Your task to perform on an android device: turn off sleep mode Image 0: 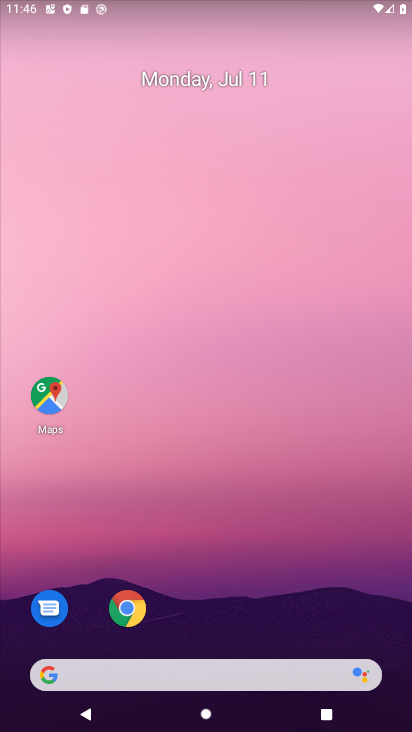
Step 0: drag from (237, 667) to (247, 286)
Your task to perform on an android device: turn off sleep mode Image 1: 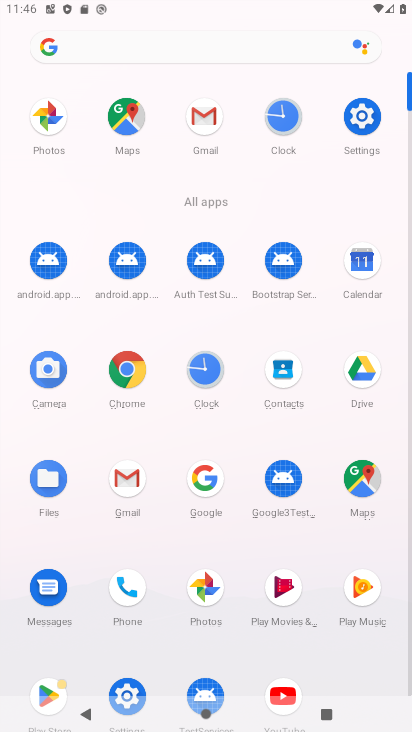
Step 1: click (367, 117)
Your task to perform on an android device: turn off sleep mode Image 2: 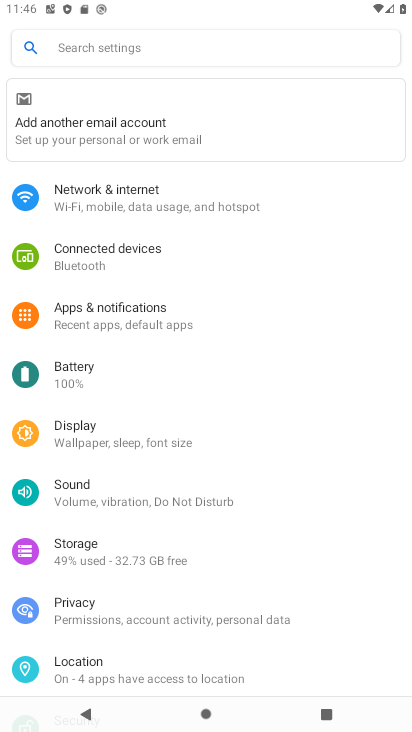
Step 2: click (162, 447)
Your task to perform on an android device: turn off sleep mode Image 3: 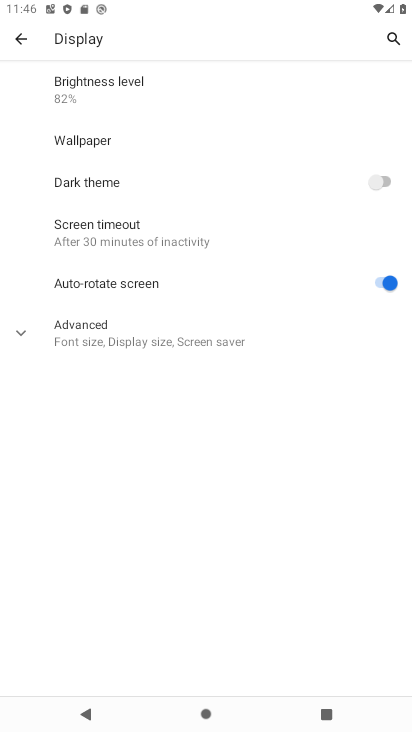
Step 3: click (126, 333)
Your task to perform on an android device: turn off sleep mode Image 4: 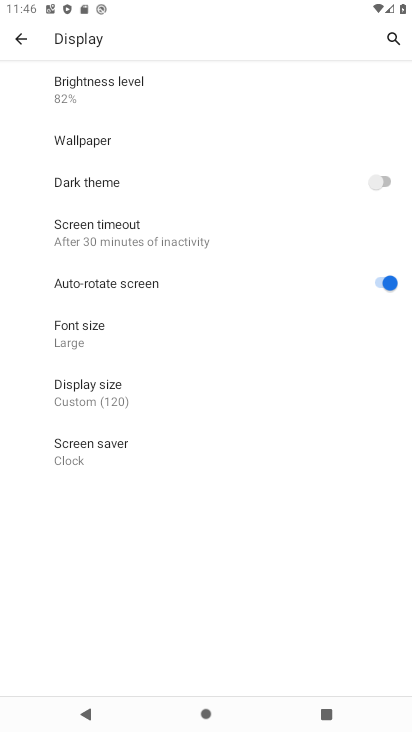
Step 4: click (88, 223)
Your task to perform on an android device: turn off sleep mode Image 5: 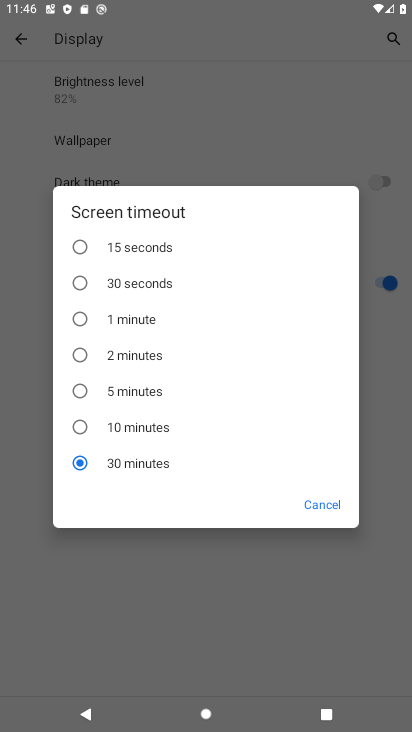
Step 5: click (117, 242)
Your task to perform on an android device: turn off sleep mode Image 6: 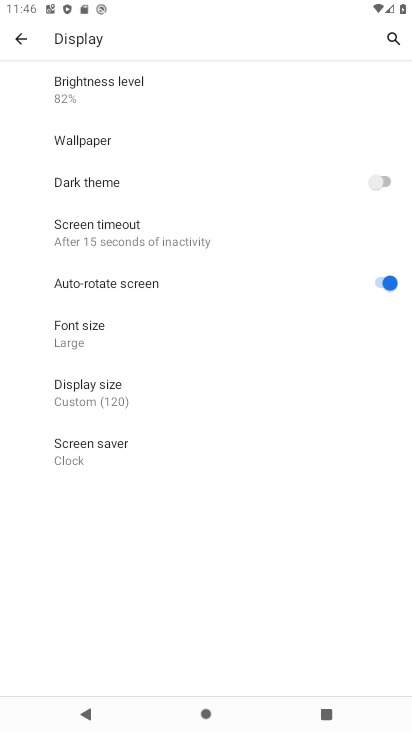
Step 6: task complete